Your task to perform on an android device: When is my next appointment? Image 0: 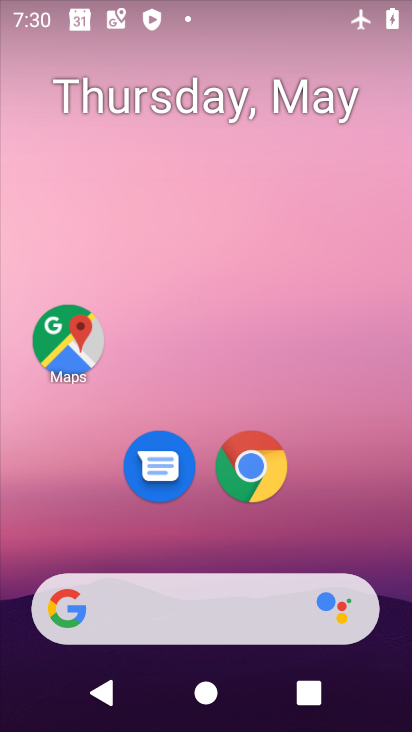
Step 0: drag from (357, 529) to (261, 162)
Your task to perform on an android device: When is my next appointment? Image 1: 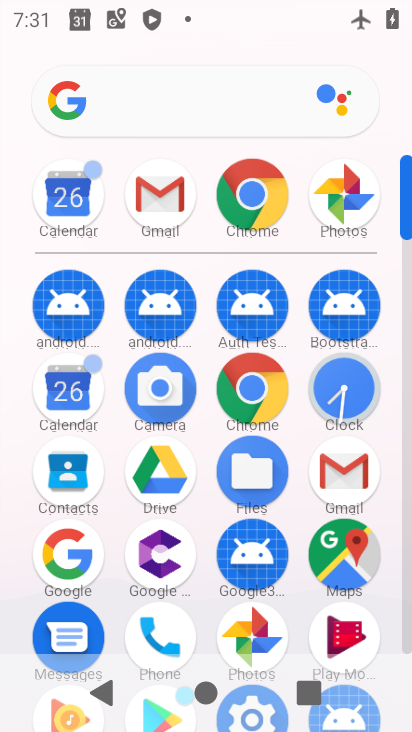
Step 1: click (62, 381)
Your task to perform on an android device: When is my next appointment? Image 2: 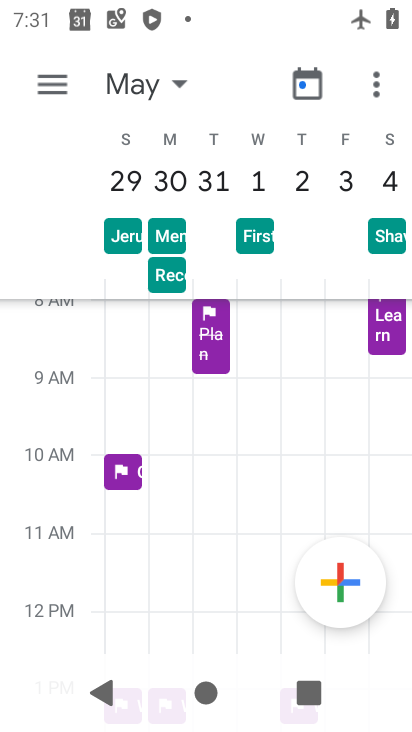
Step 2: click (57, 83)
Your task to perform on an android device: When is my next appointment? Image 3: 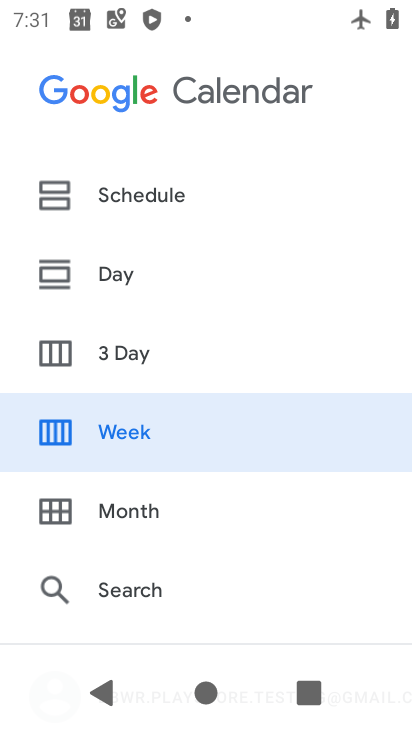
Step 3: click (116, 265)
Your task to perform on an android device: When is my next appointment? Image 4: 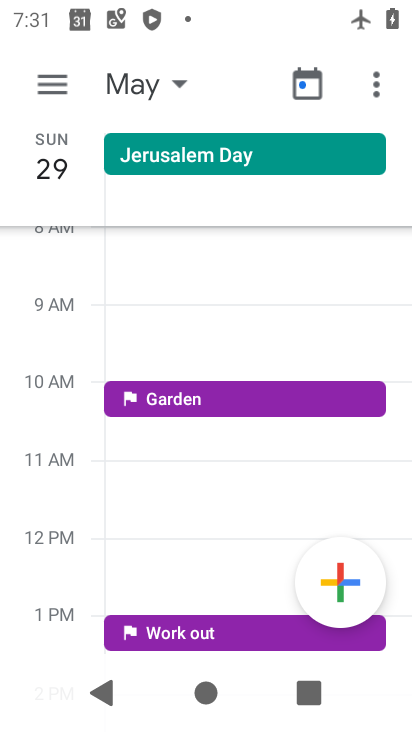
Step 4: click (175, 85)
Your task to perform on an android device: When is my next appointment? Image 5: 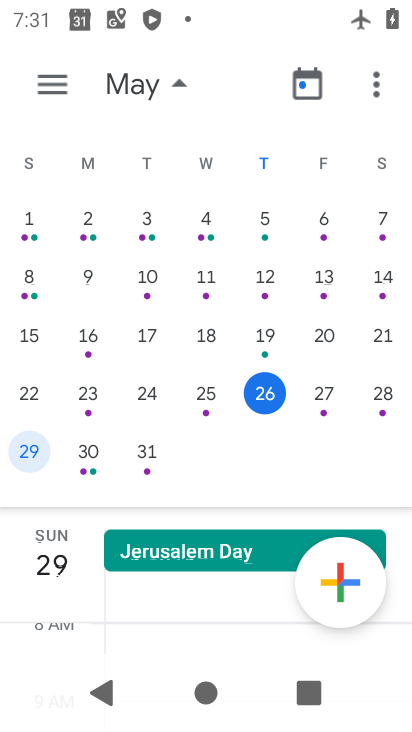
Step 5: click (260, 387)
Your task to perform on an android device: When is my next appointment? Image 6: 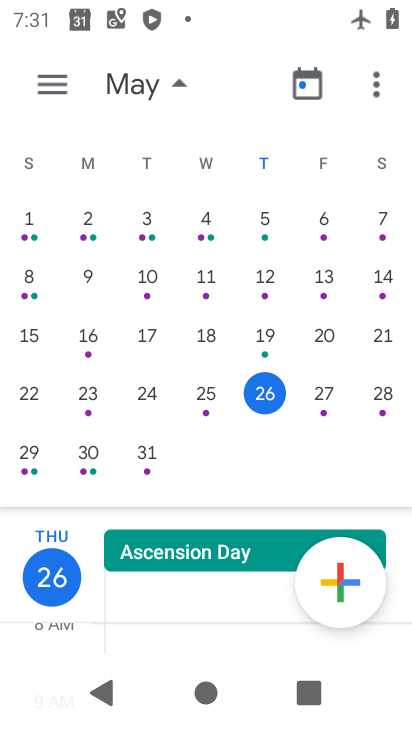
Step 6: task complete